Your task to perform on an android device: Open eBay Image 0: 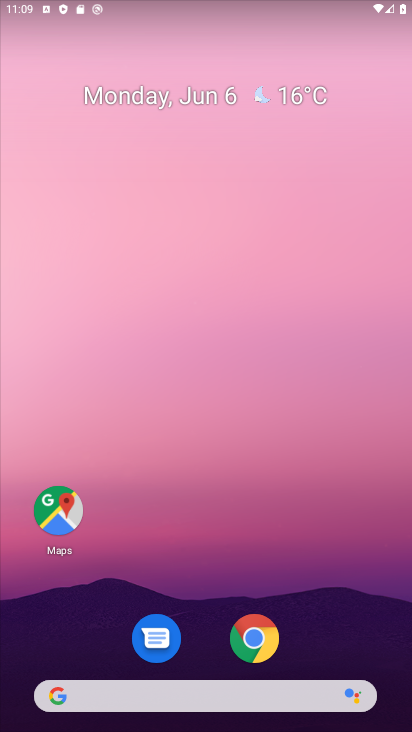
Step 0: click (239, 253)
Your task to perform on an android device: Open eBay Image 1: 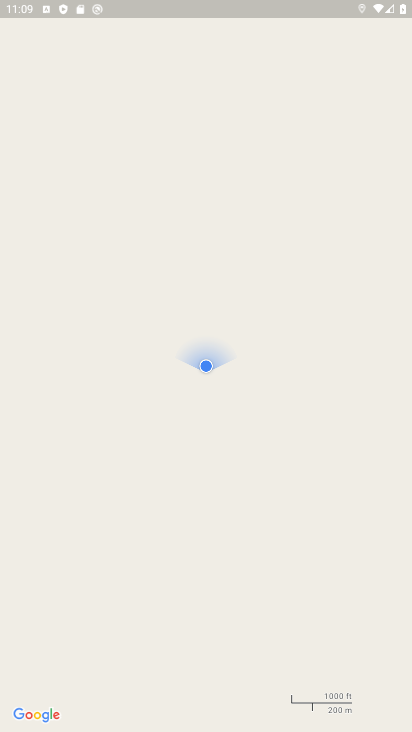
Step 1: press home button
Your task to perform on an android device: Open eBay Image 2: 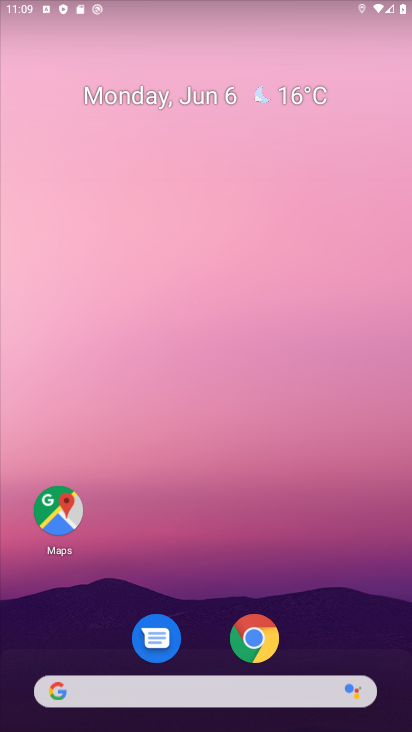
Step 2: drag from (255, 710) to (287, 184)
Your task to perform on an android device: Open eBay Image 3: 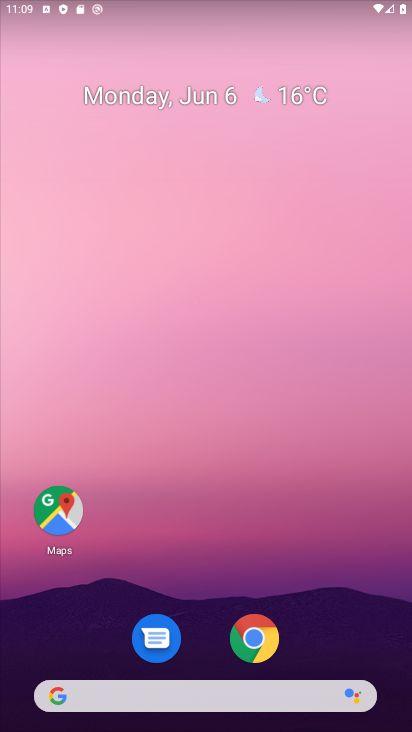
Step 3: drag from (180, 724) to (351, 225)
Your task to perform on an android device: Open eBay Image 4: 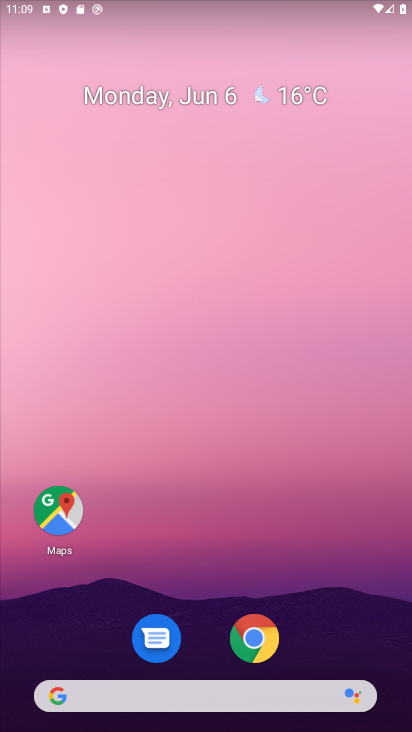
Step 4: click (250, 615)
Your task to perform on an android device: Open eBay Image 5: 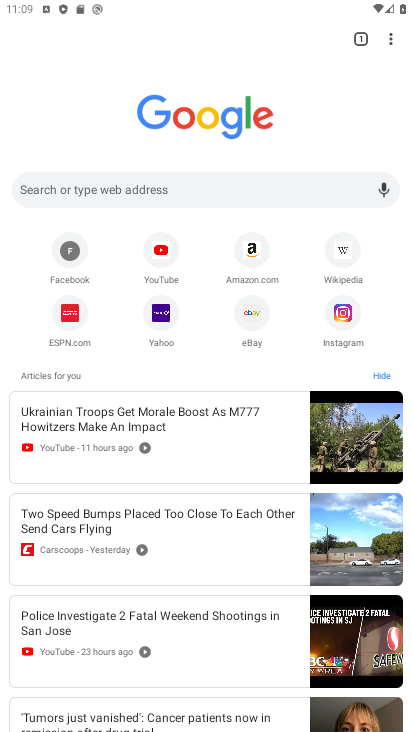
Step 5: click (249, 315)
Your task to perform on an android device: Open eBay Image 6: 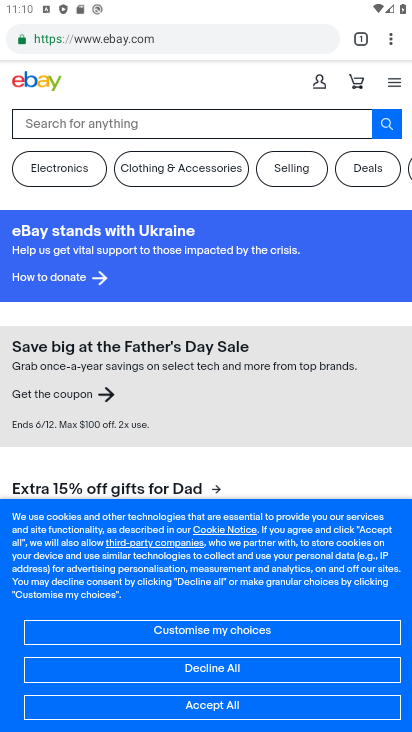
Step 6: click (243, 676)
Your task to perform on an android device: Open eBay Image 7: 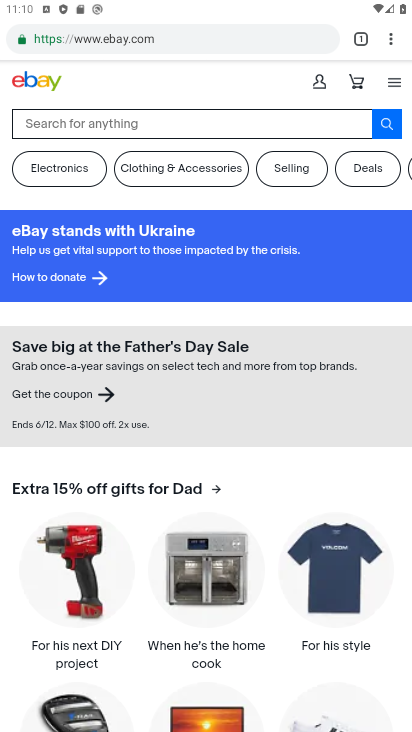
Step 7: task complete